Your task to perform on an android device: turn on airplane mode Image 0: 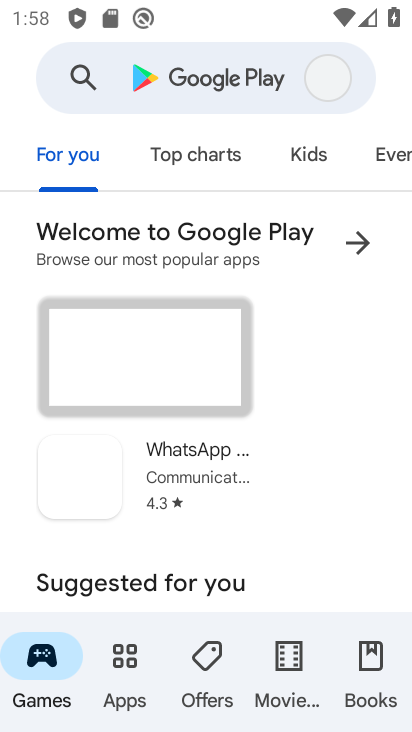
Step 0: press home button
Your task to perform on an android device: turn on airplane mode Image 1: 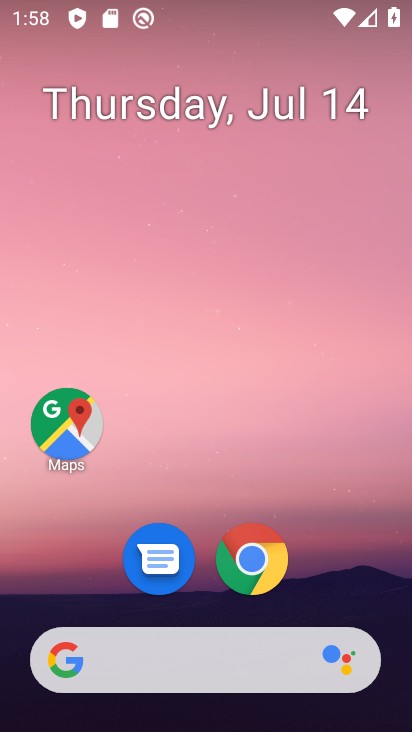
Step 1: drag from (185, 627) to (288, 177)
Your task to perform on an android device: turn on airplane mode Image 2: 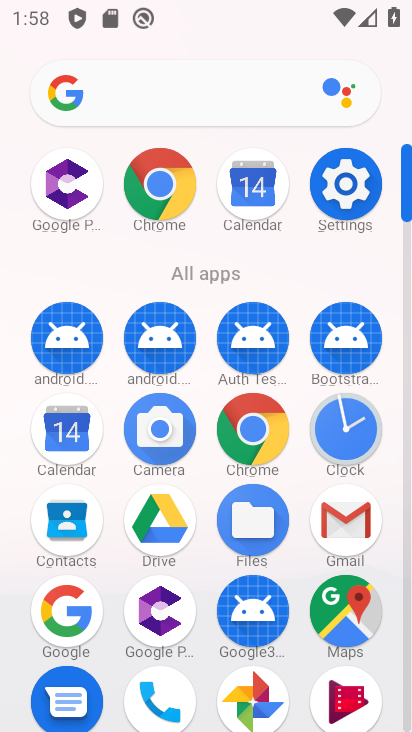
Step 2: click (330, 194)
Your task to perform on an android device: turn on airplane mode Image 3: 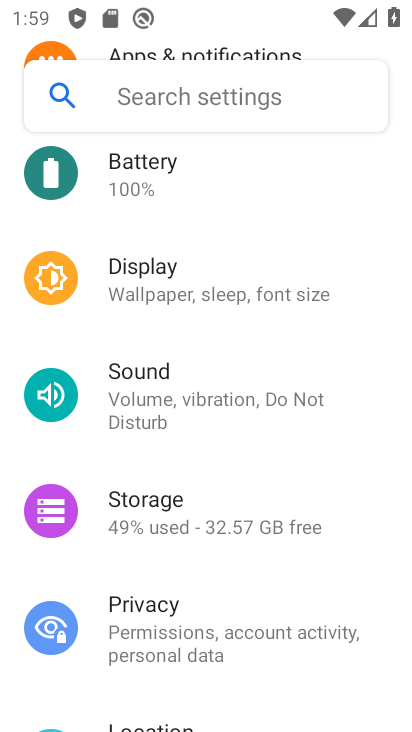
Step 3: drag from (198, 246) to (190, 730)
Your task to perform on an android device: turn on airplane mode Image 4: 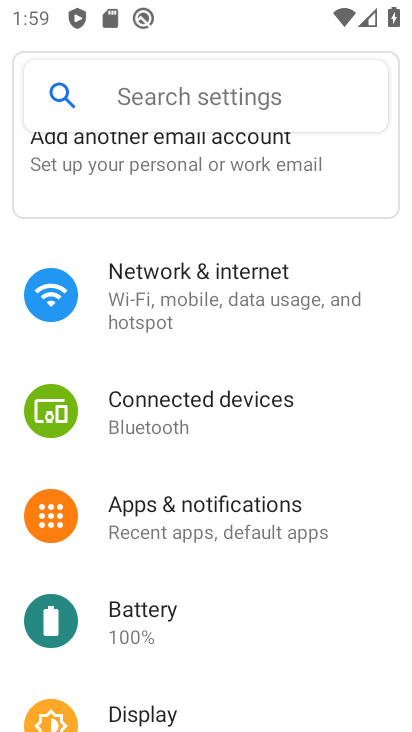
Step 4: click (246, 304)
Your task to perform on an android device: turn on airplane mode Image 5: 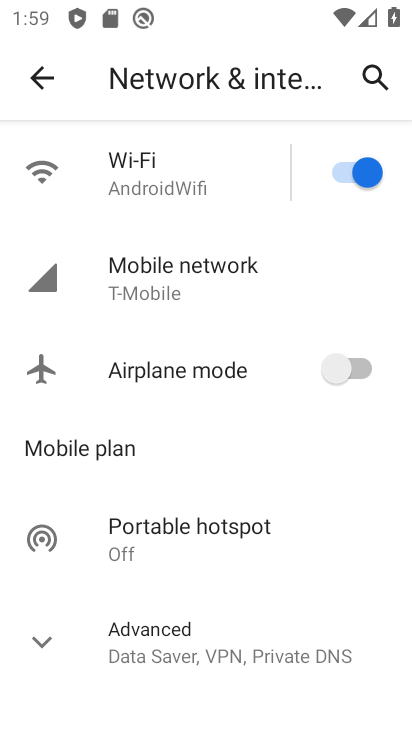
Step 5: click (272, 389)
Your task to perform on an android device: turn on airplane mode Image 6: 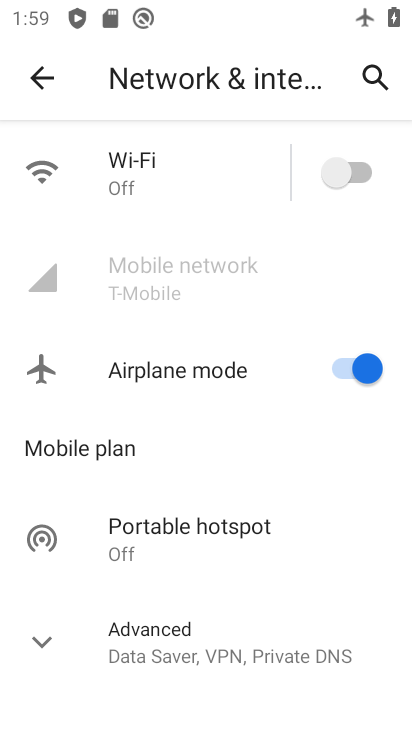
Step 6: task complete